Your task to perform on an android device: Go to notification settings Image 0: 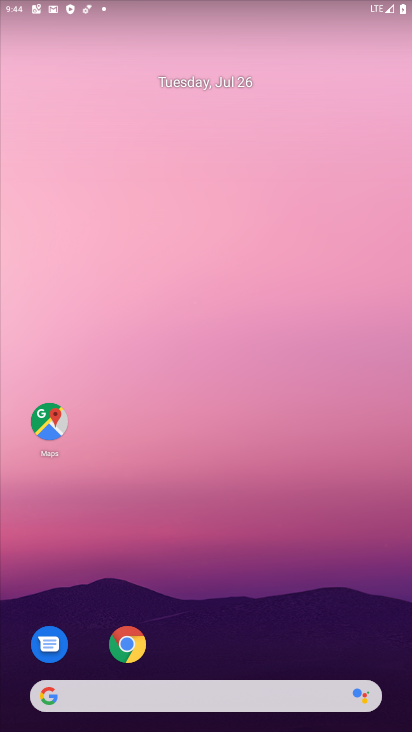
Step 0: drag from (295, 666) to (238, 43)
Your task to perform on an android device: Go to notification settings Image 1: 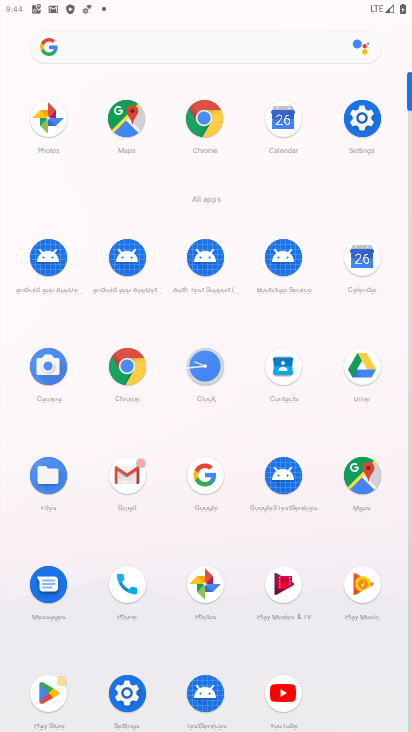
Step 1: click (367, 121)
Your task to perform on an android device: Go to notification settings Image 2: 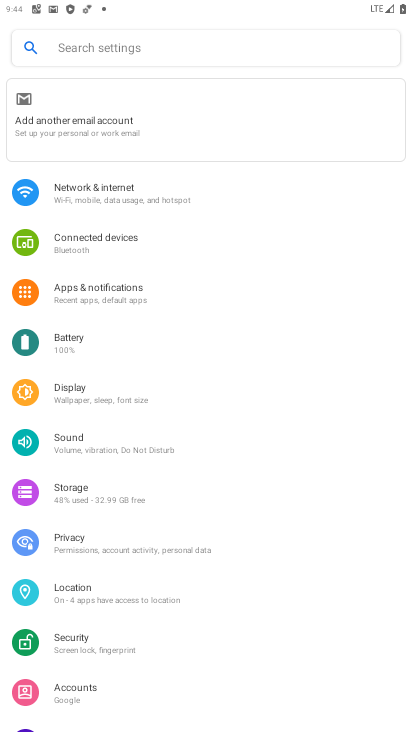
Step 2: click (135, 290)
Your task to perform on an android device: Go to notification settings Image 3: 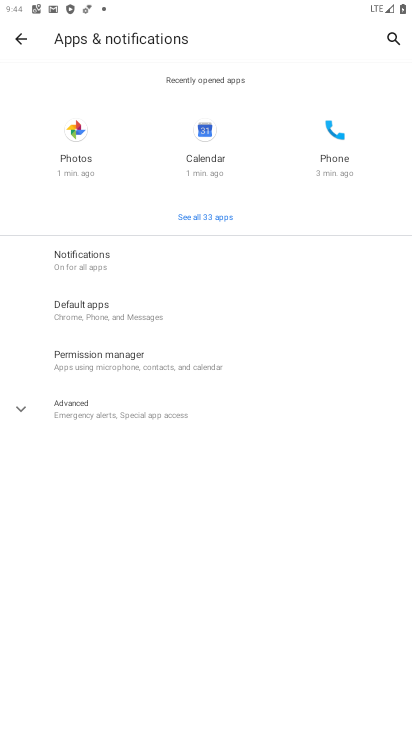
Step 3: click (81, 267)
Your task to perform on an android device: Go to notification settings Image 4: 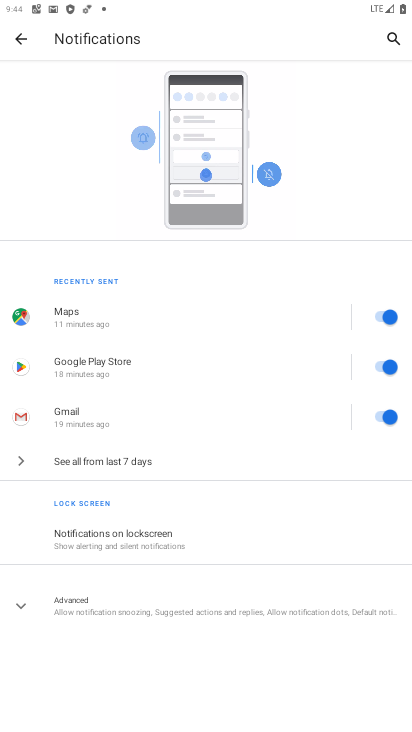
Step 4: task complete